Your task to perform on an android device: Open CNN.com Image 0: 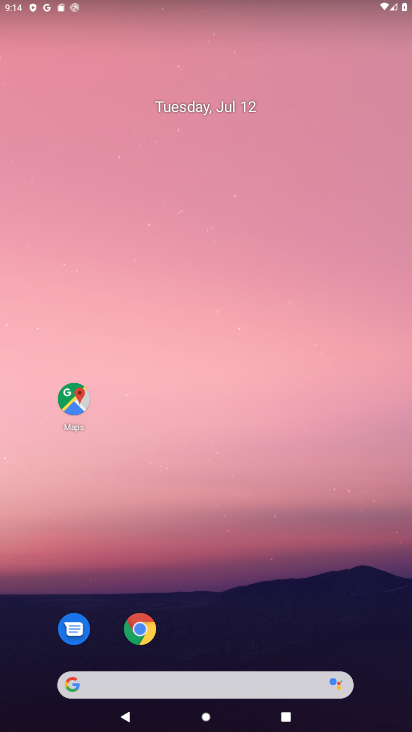
Step 0: click (139, 626)
Your task to perform on an android device: Open CNN.com Image 1: 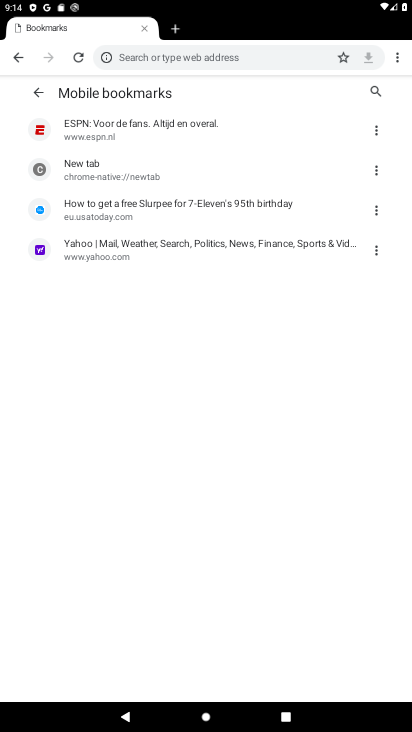
Step 1: click (133, 60)
Your task to perform on an android device: Open CNN.com Image 2: 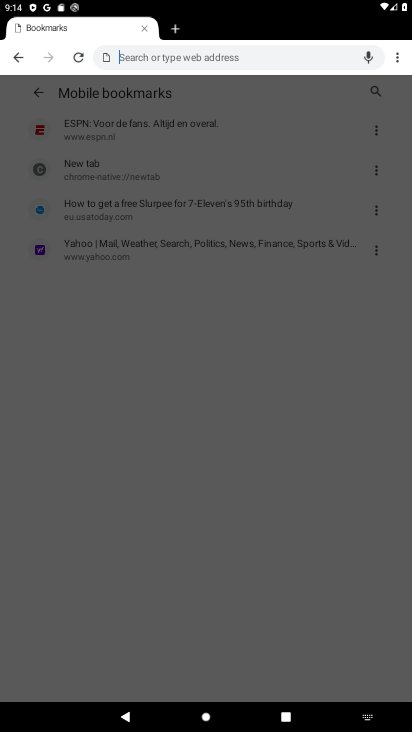
Step 2: type "cnn.com"
Your task to perform on an android device: Open CNN.com Image 3: 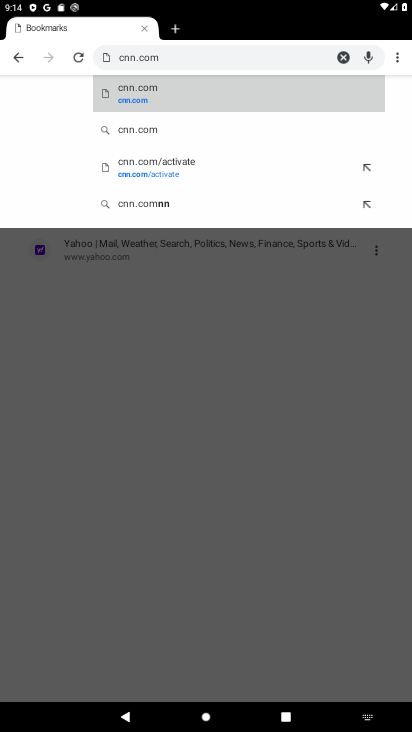
Step 3: click (315, 97)
Your task to perform on an android device: Open CNN.com Image 4: 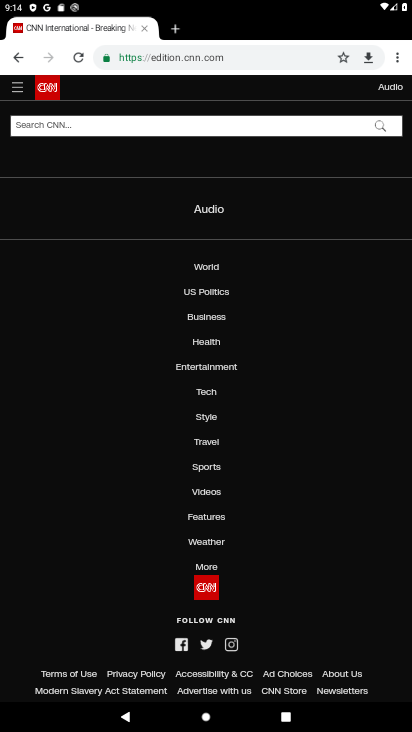
Step 4: task complete